Your task to perform on an android device: check battery use Image 0: 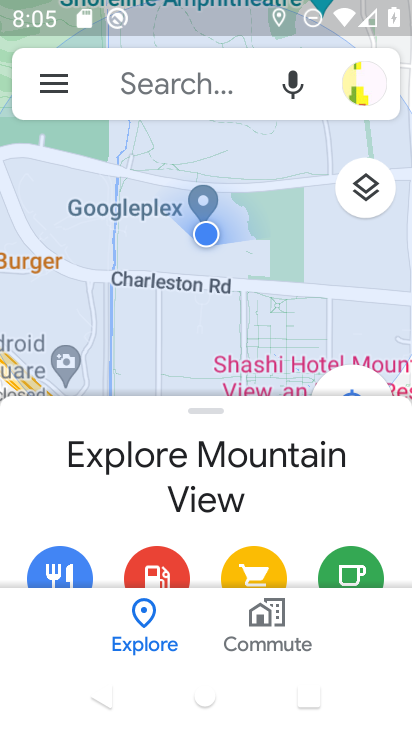
Step 0: press home button
Your task to perform on an android device: check battery use Image 1: 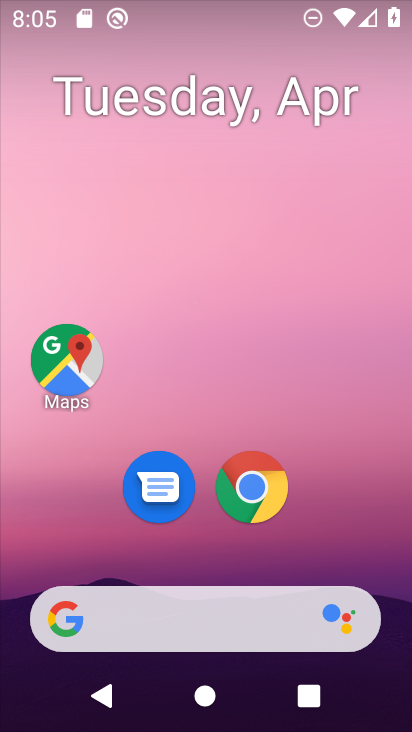
Step 1: drag from (196, 435) to (193, 339)
Your task to perform on an android device: check battery use Image 2: 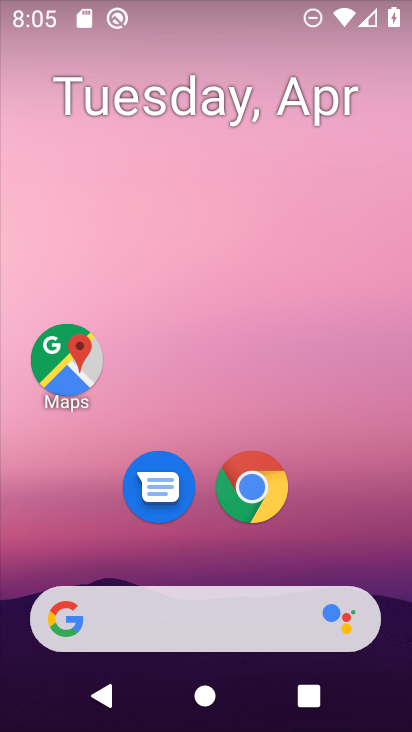
Step 2: click (196, 316)
Your task to perform on an android device: check battery use Image 3: 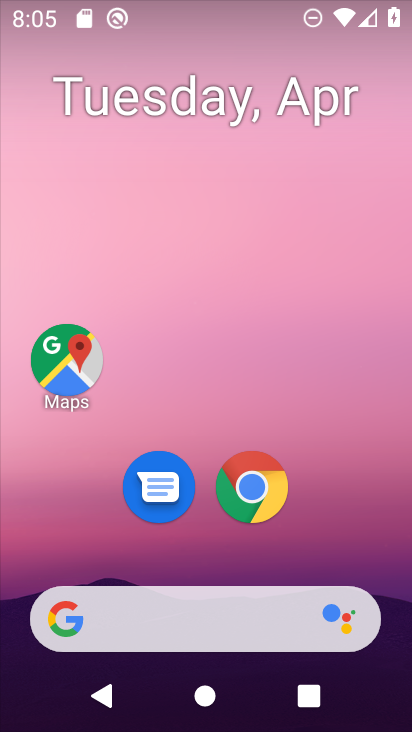
Step 3: drag from (177, 578) to (243, 226)
Your task to perform on an android device: check battery use Image 4: 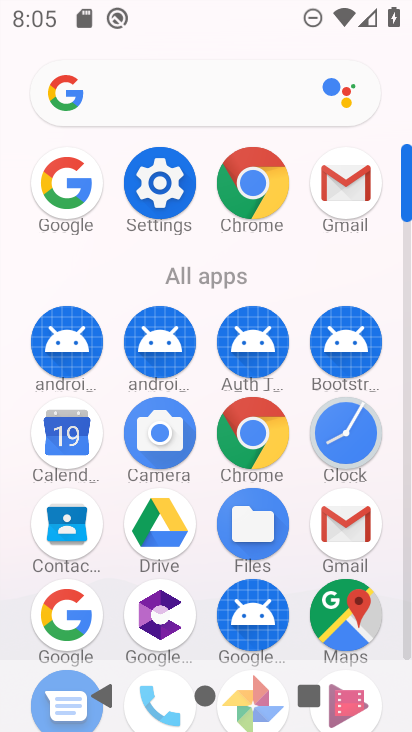
Step 4: click (161, 185)
Your task to perform on an android device: check battery use Image 5: 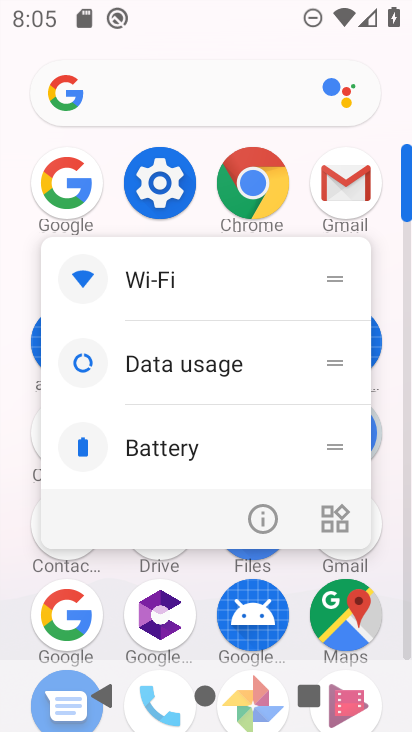
Step 5: click (160, 184)
Your task to perform on an android device: check battery use Image 6: 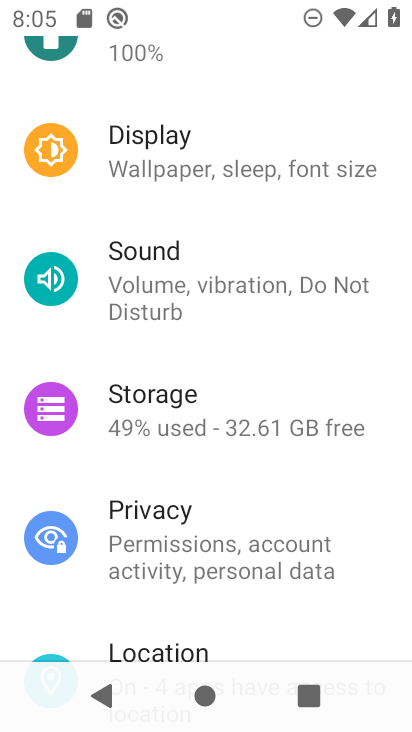
Step 6: drag from (237, 127) to (247, 450)
Your task to perform on an android device: check battery use Image 7: 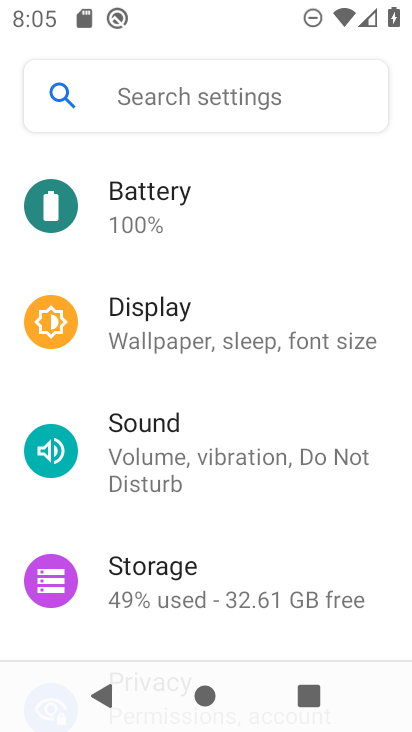
Step 7: click (160, 211)
Your task to perform on an android device: check battery use Image 8: 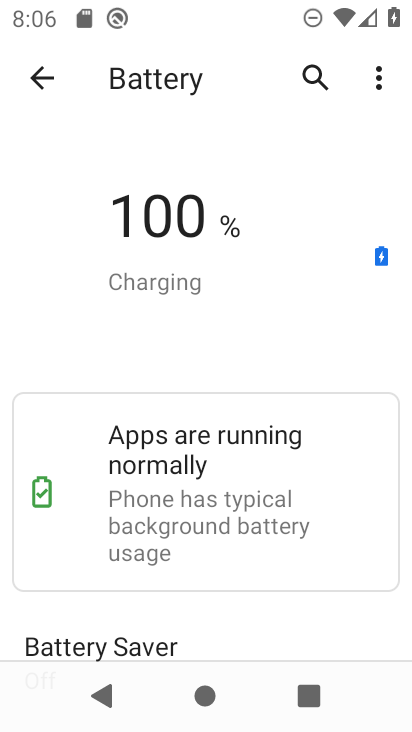
Step 8: click (383, 65)
Your task to perform on an android device: check battery use Image 9: 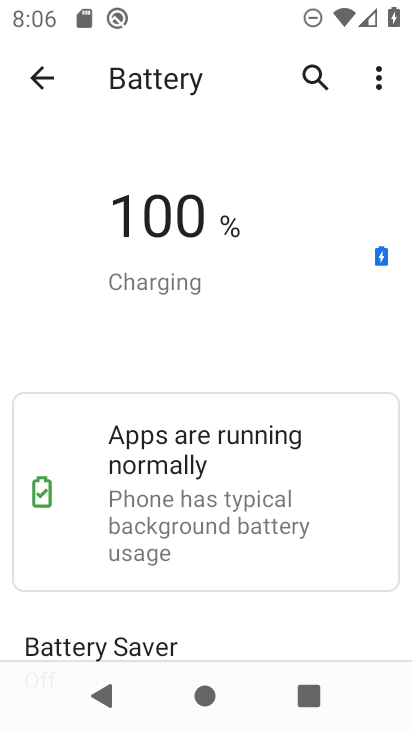
Step 9: click (383, 80)
Your task to perform on an android device: check battery use Image 10: 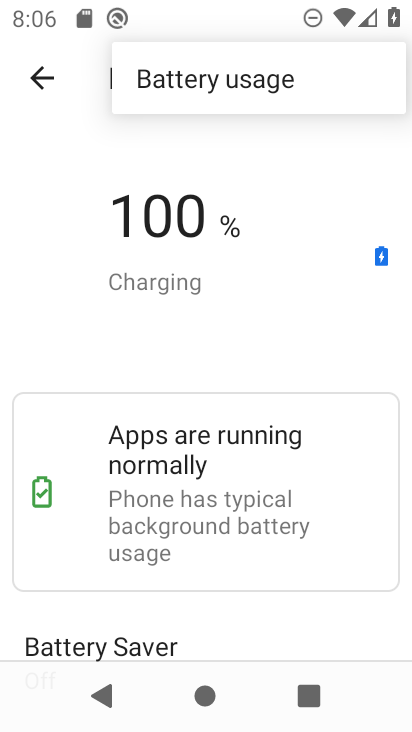
Step 10: click (256, 80)
Your task to perform on an android device: check battery use Image 11: 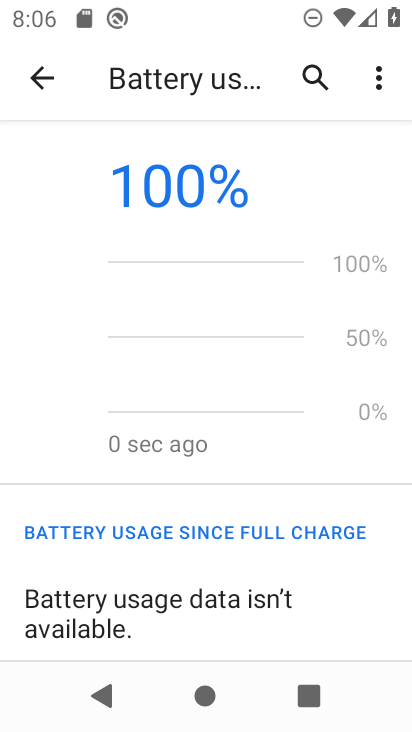
Step 11: task complete